Your task to perform on an android device: turn vacation reply on in the gmail app Image 0: 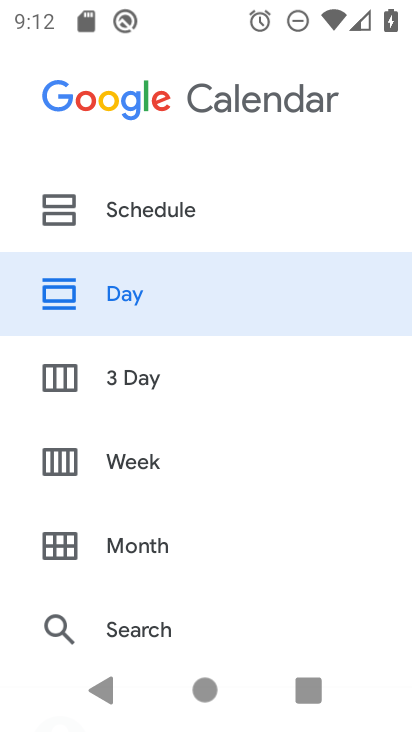
Step 0: press home button
Your task to perform on an android device: turn vacation reply on in the gmail app Image 1: 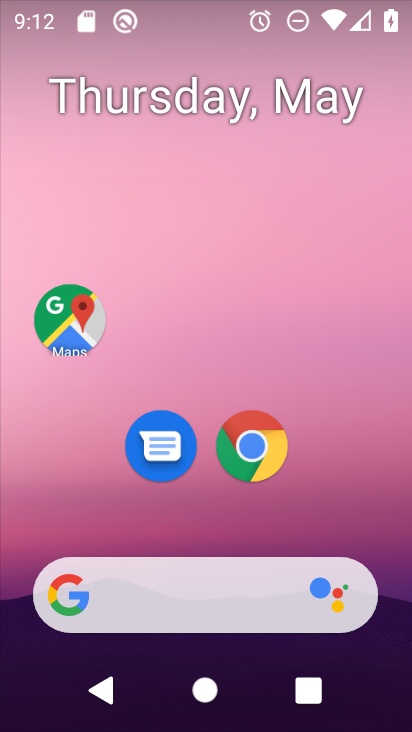
Step 1: drag from (331, 500) to (409, 483)
Your task to perform on an android device: turn vacation reply on in the gmail app Image 2: 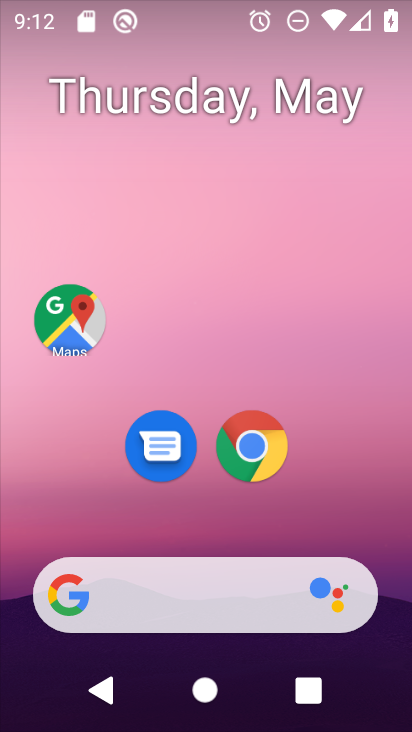
Step 2: drag from (211, 575) to (234, 208)
Your task to perform on an android device: turn vacation reply on in the gmail app Image 3: 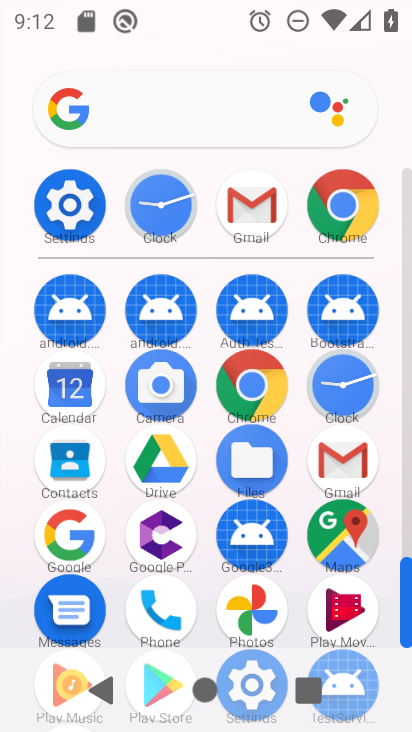
Step 3: click (341, 458)
Your task to perform on an android device: turn vacation reply on in the gmail app Image 4: 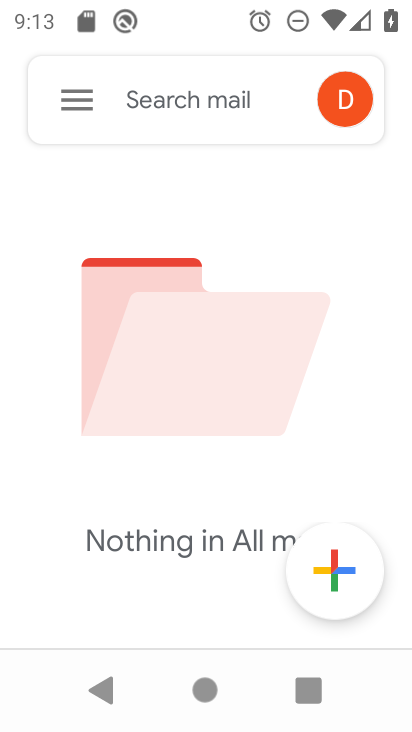
Step 4: click (91, 86)
Your task to perform on an android device: turn vacation reply on in the gmail app Image 5: 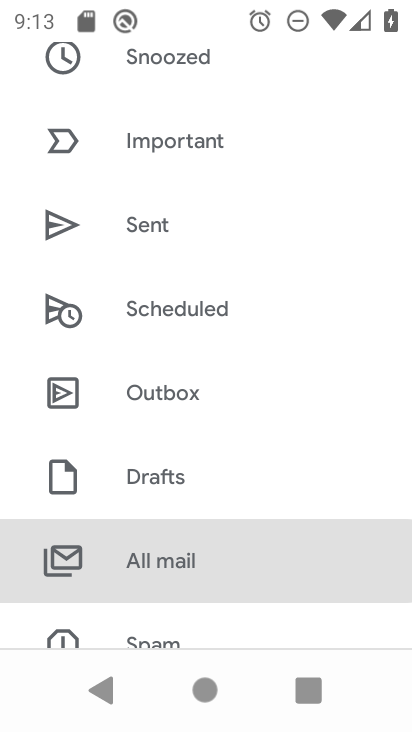
Step 5: drag from (267, 624) to (274, 201)
Your task to perform on an android device: turn vacation reply on in the gmail app Image 6: 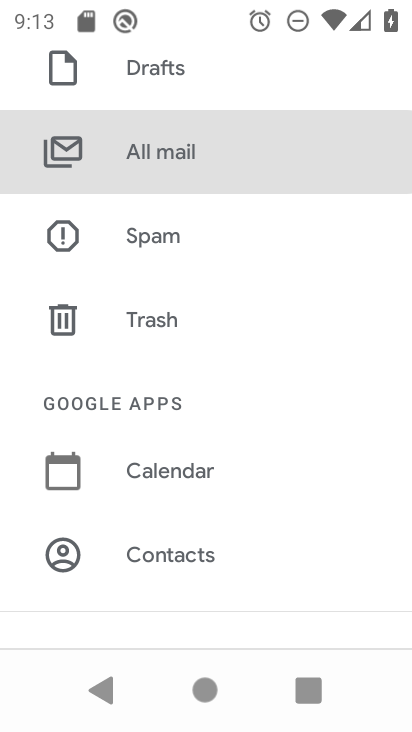
Step 6: drag from (258, 601) to (277, 280)
Your task to perform on an android device: turn vacation reply on in the gmail app Image 7: 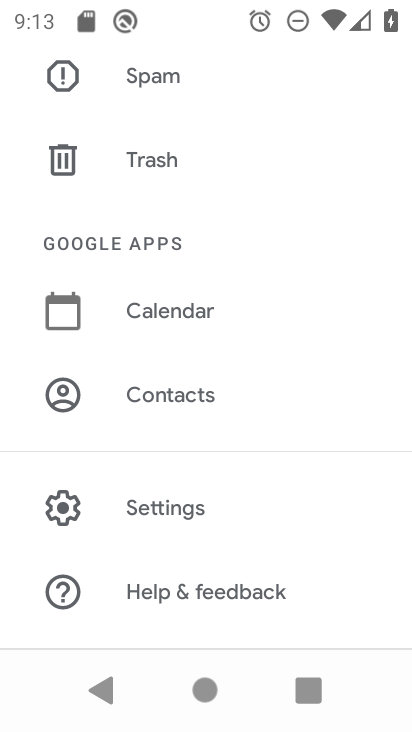
Step 7: click (161, 510)
Your task to perform on an android device: turn vacation reply on in the gmail app Image 8: 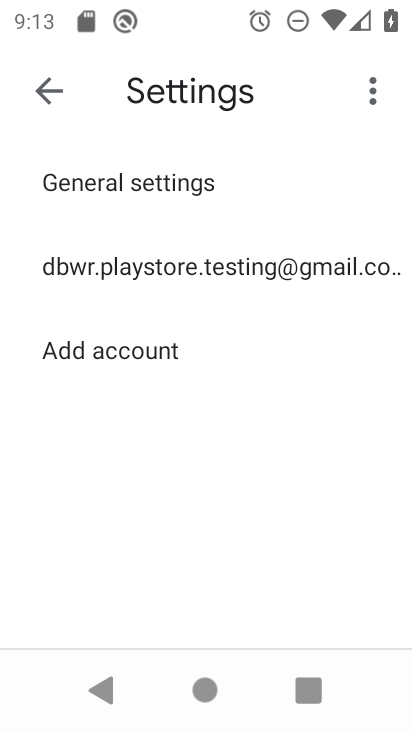
Step 8: click (207, 268)
Your task to perform on an android device: turn vacation reply on in the gmail app Image 9: 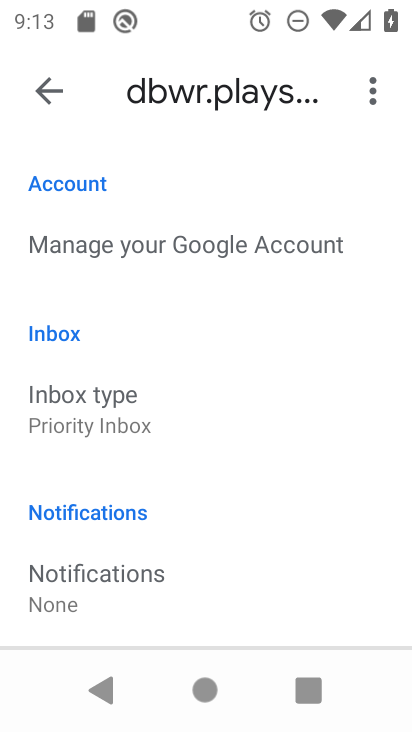
Step 9: task complete